Your task to perform on an android device: turn on airplane mode Image 0: 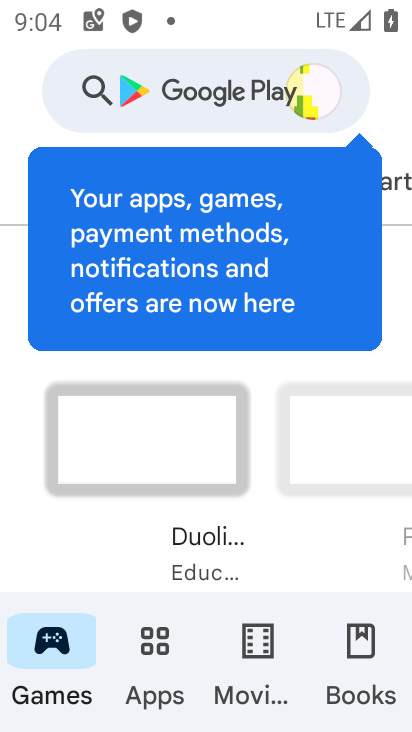
Step 0: press home button
Your task to perform on an android device: turn on airplane mode Image 1: 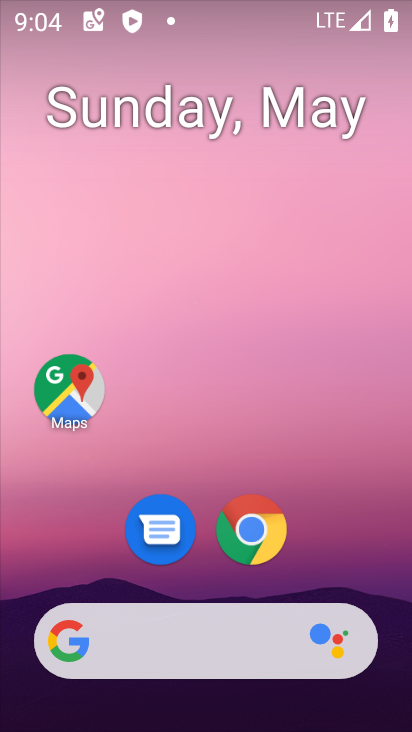
Step 1: drag from (329, 575) to (192, 70)
Your task to perform on an android device: turn on airplane mode Image 2: 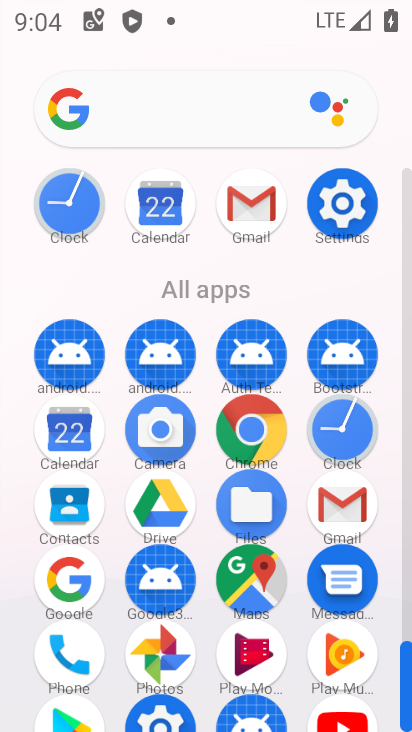
Step 2: click (338, 206)
Your task to perform on an android device: turn on airplane mode Image 3: 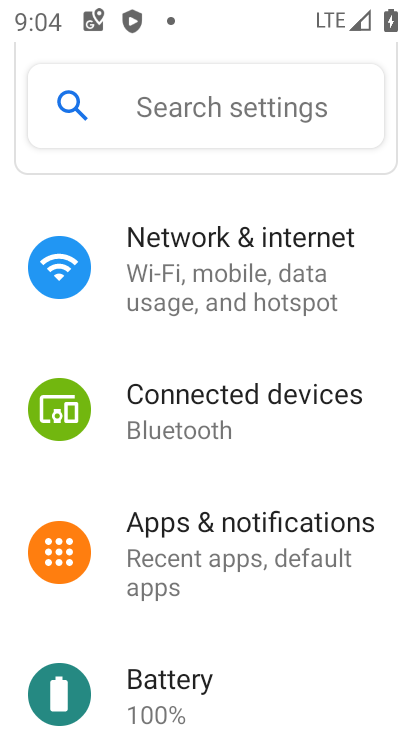
Step 3: click (203, 257)
Your task to perform on an android device: turn on airplane mode Image 4: 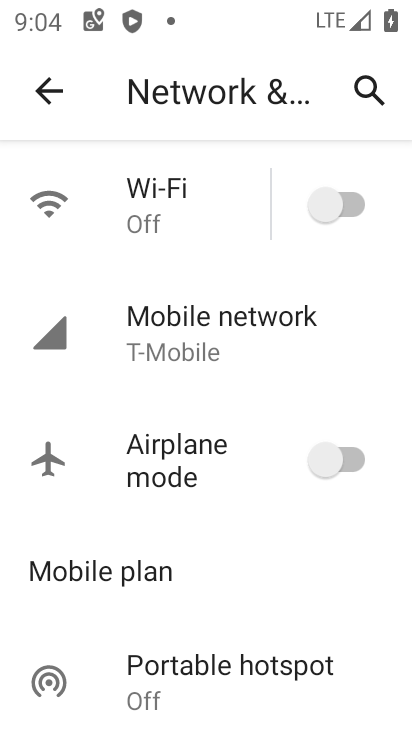
Step 4: click (339, 452)
Your task to perform on an android device: turn on airplane mode Image 5: 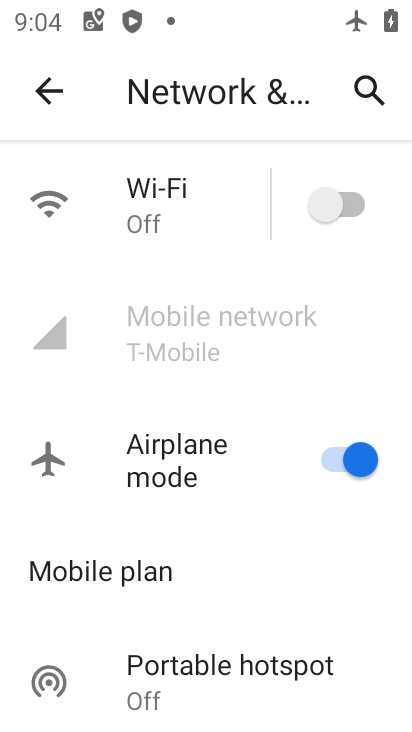
Step 5: task complete